Your task to perform on an android device: Open ESPN.com Image 0: 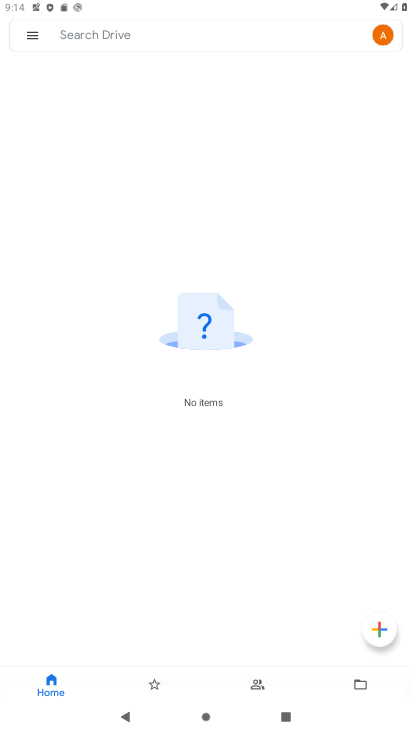
Step 0: press home button
Your task to perform on an android device: Open ESPN.com Image 1: 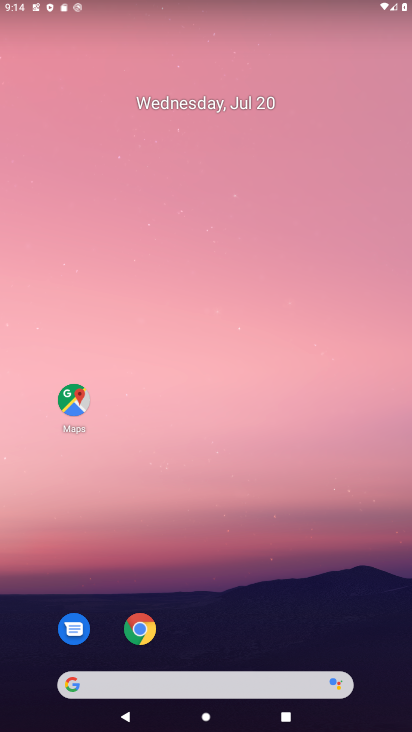
Step 1: click (140, 643)
Your task to perform on an android device: Open ESPN.com Image 2: 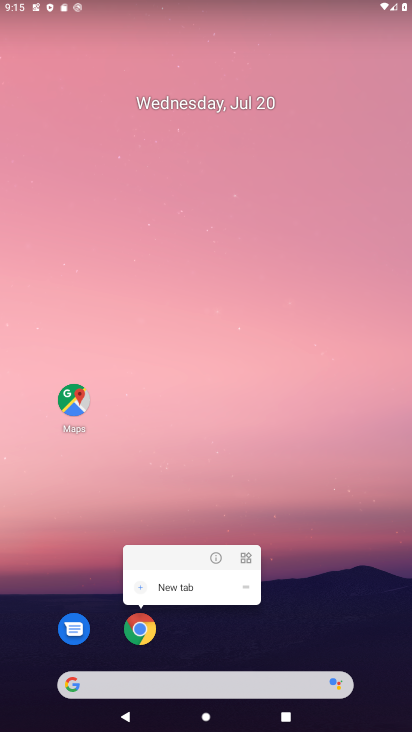
Step 2: click (145, 620)
Your task to perform on an android device: Open ESPN.com Image 3: 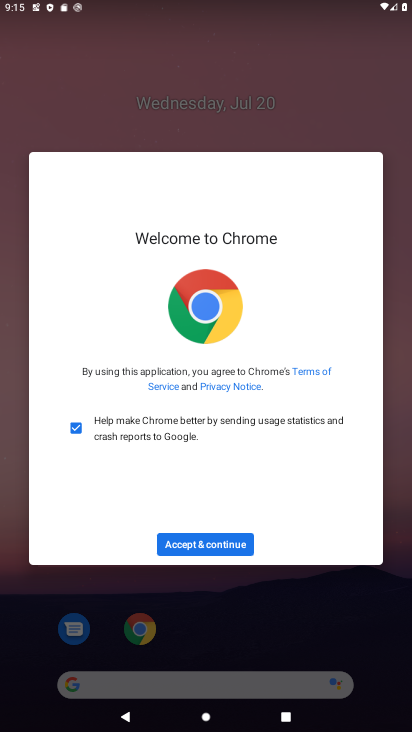
Step 3: click (217, 540)
Your task to perform on an android device: Open ESPN.com Image 4: 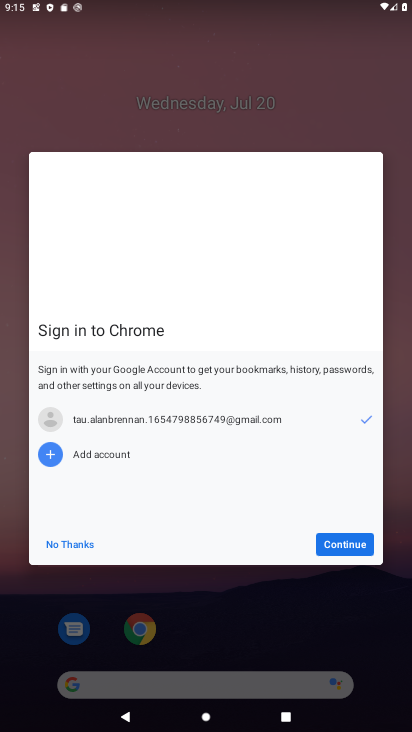
Step 4: click (354, 545)
Your task to perform on an android device: Open ESPN.com Image 5: 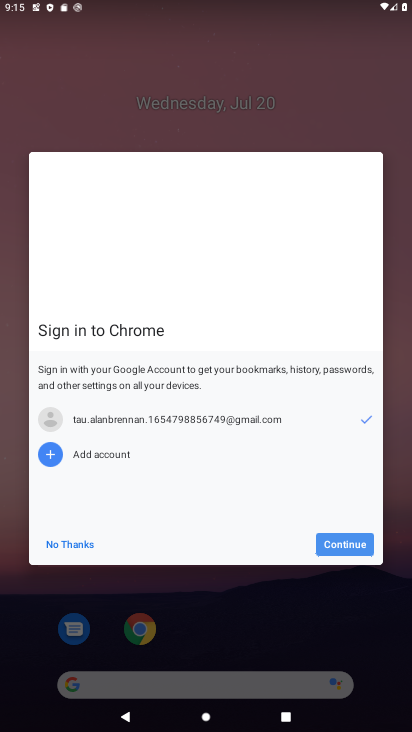
Step 5: click (354, 545)
Your task to perform on an android device: Open ESPN.com Image 6: 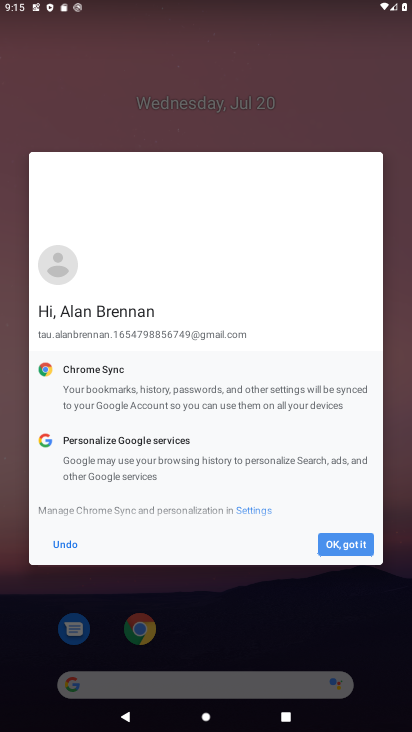
Step 6: click (354, 545)
Your task to perform on an android device: Open ESPN.com Image 7: 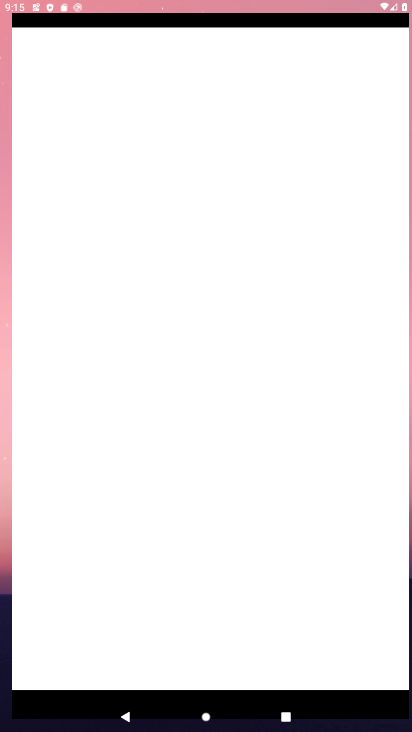
Step 7: click (354, 545)
Your task to perform on an android device: Open ESPN.com Image 8: 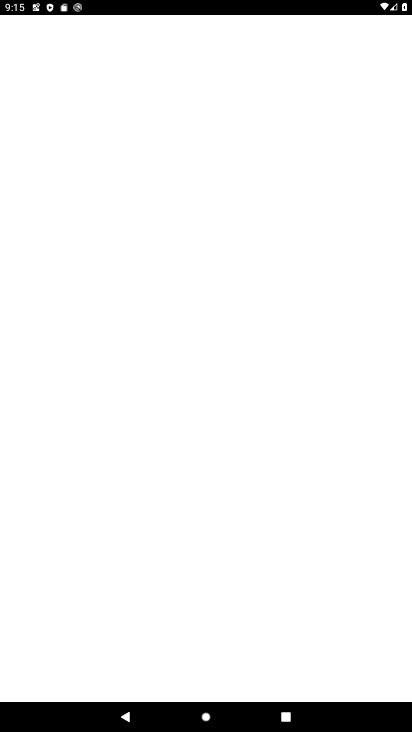
Step 8: click (354, 545)
Your task to perform on an android device: Open ESPN.com Image 9: 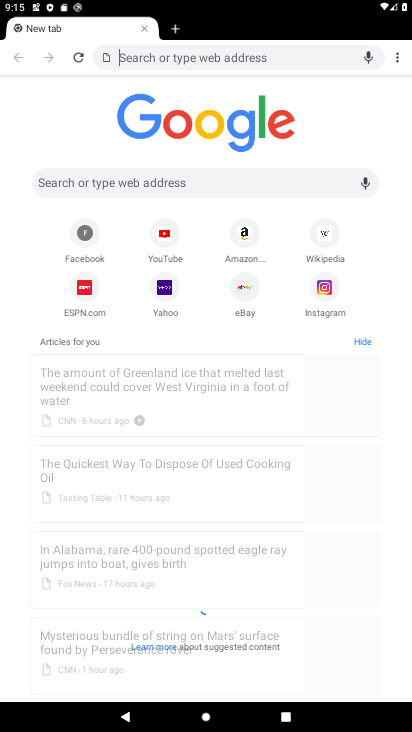
Step 9: click (80, 273)
Your task to perform on an android device: Open ESPN.com Image 10: 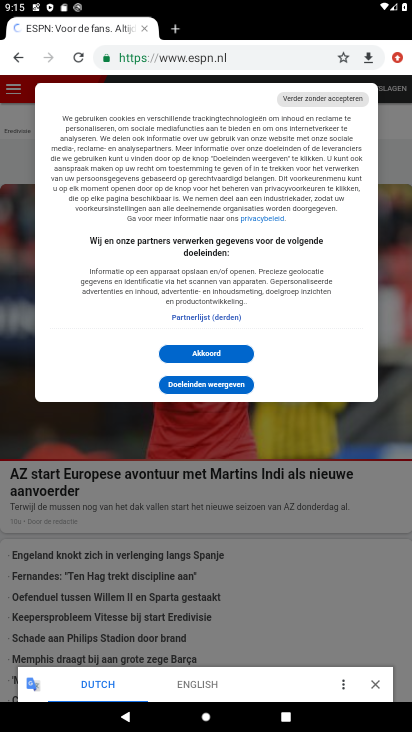
Step 10: task complete